Your task to perform on an android device: Check the weather Image 0: 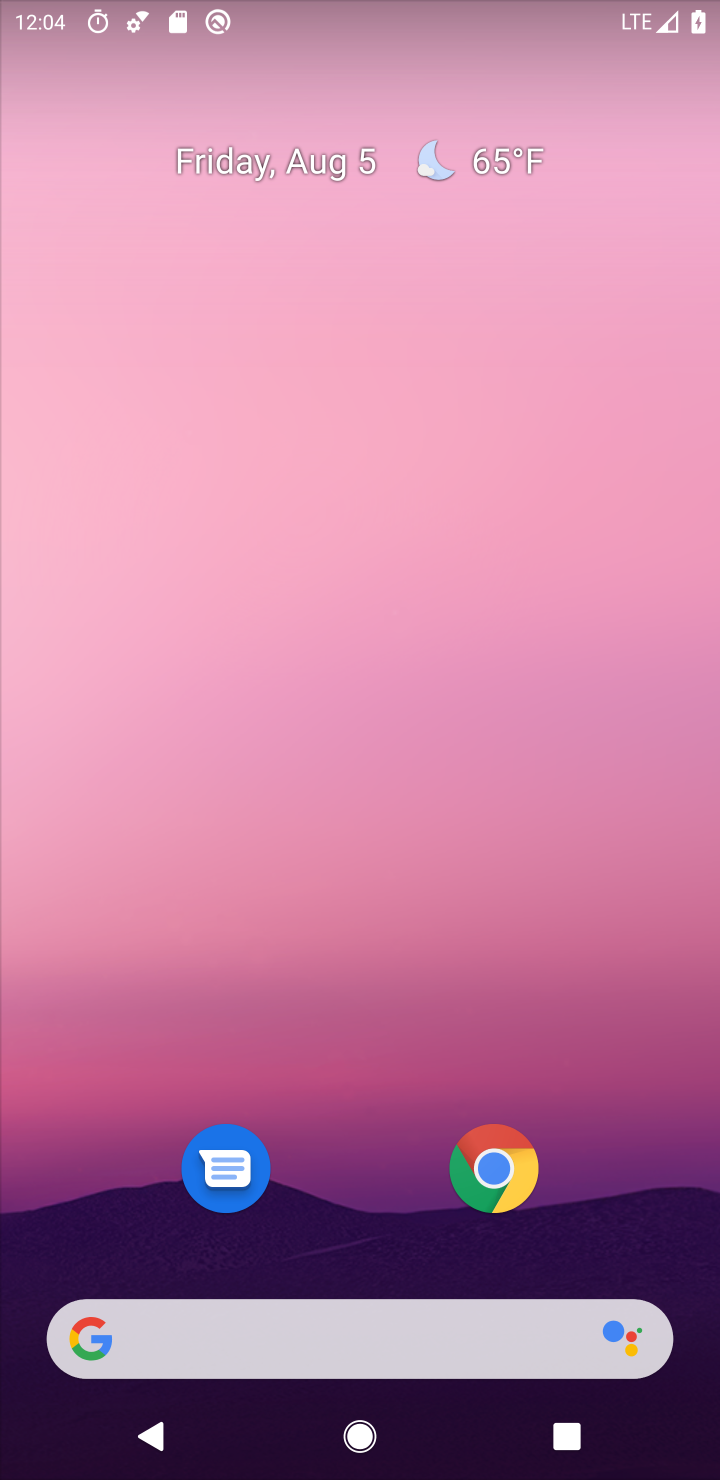
Step 0: click (264, 1330)
Your task to perform on an android device: Check the weather Image 1: 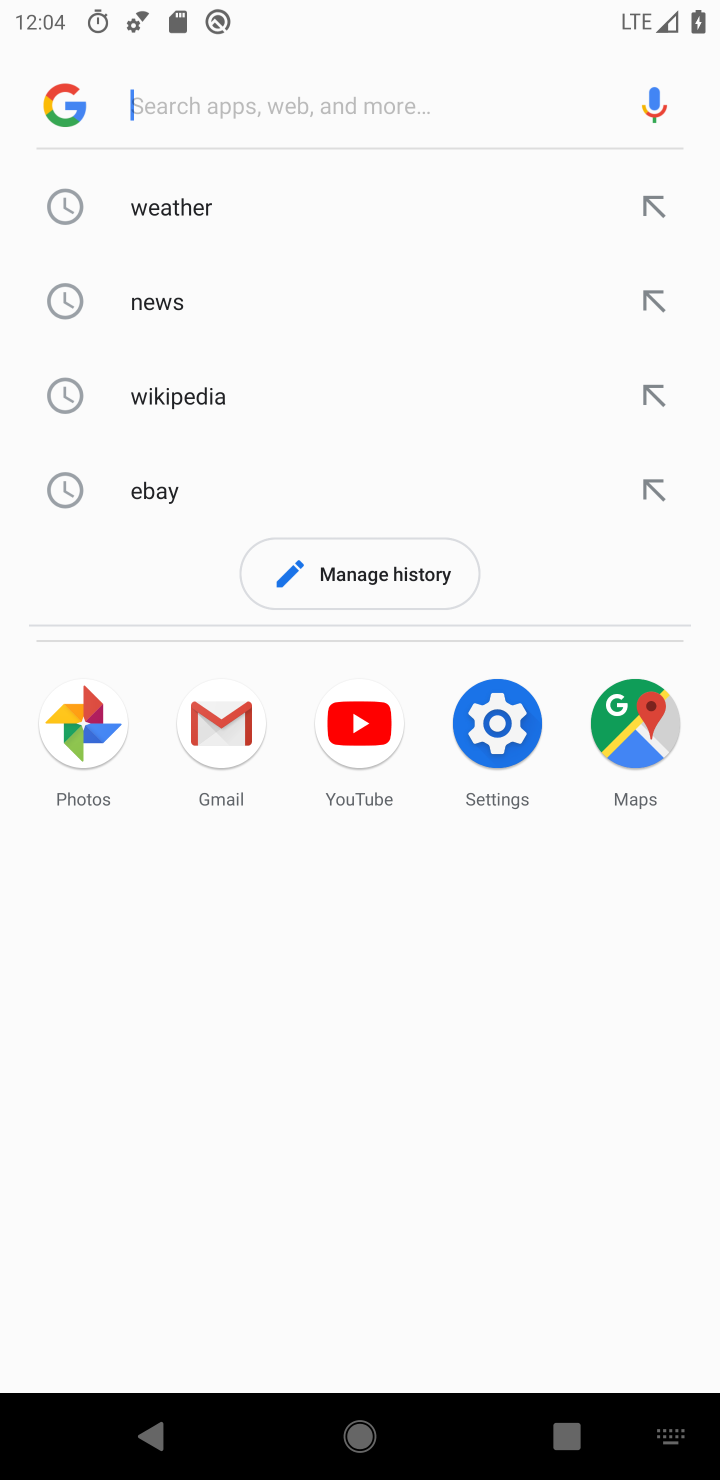
Step 1: click (181, 199)
Your task to perform on an android device: Check the weather Image 2: 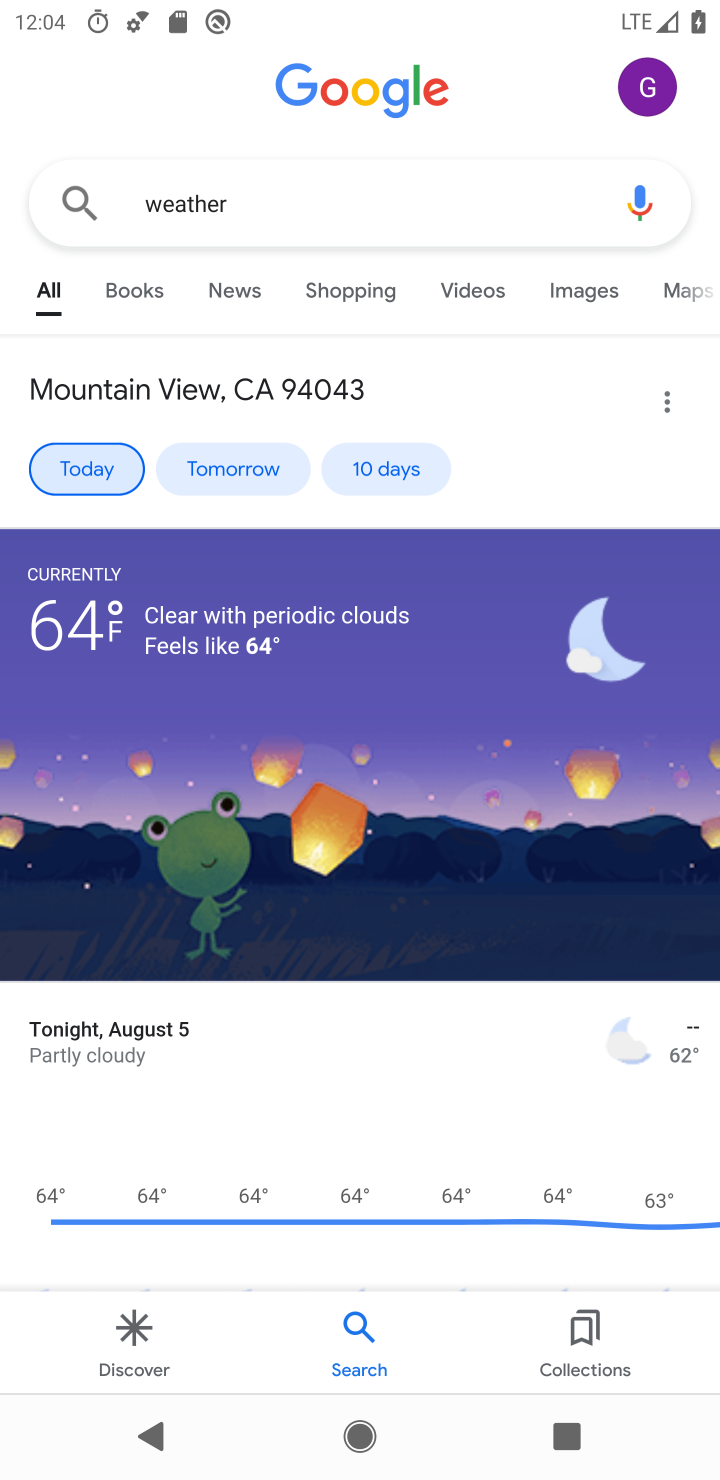
Step 2: task complete